Your task to perform on an android device: Add "asus rog" to the cart on ebay, then select checkout. Image 0: 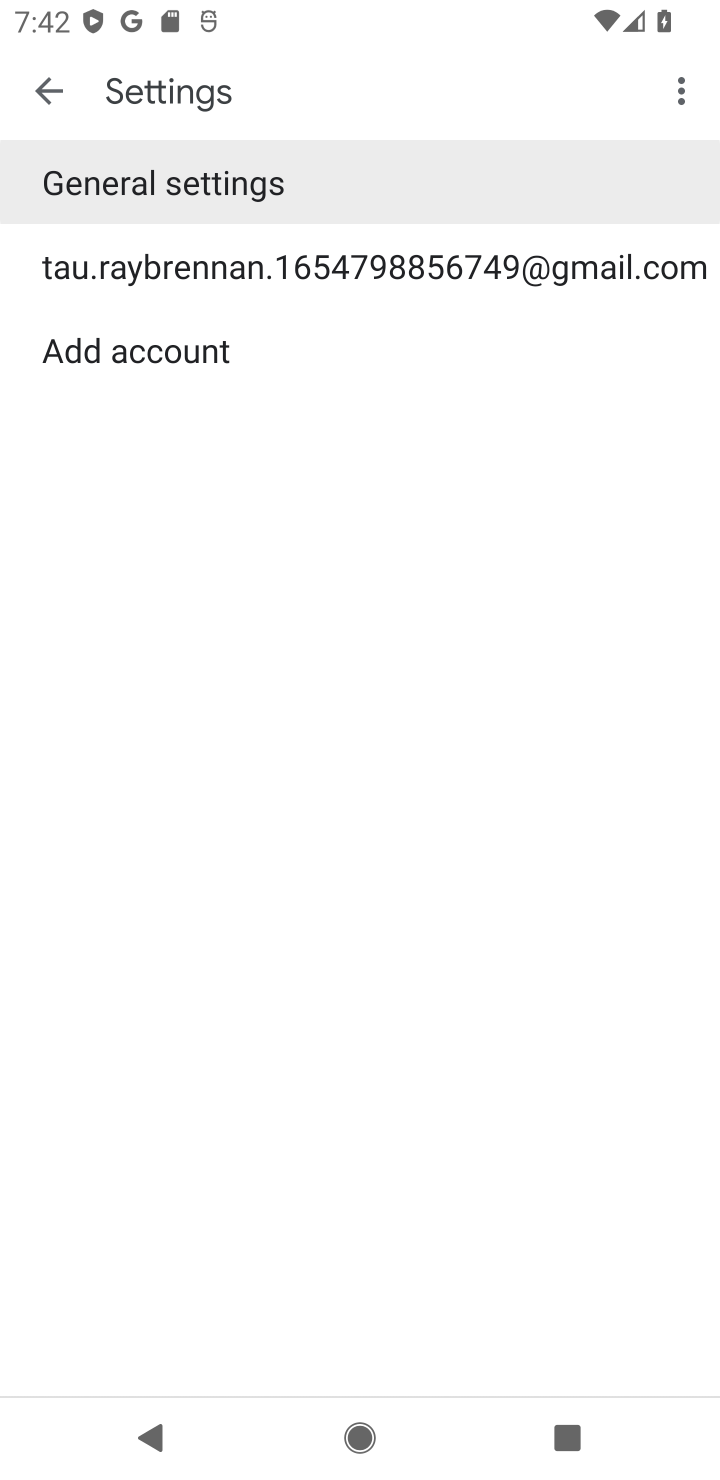
Step 0: press home button
Your task to perform on an android device: Add "asus rog" to the cart on ebay, then select checkout. Image 1: 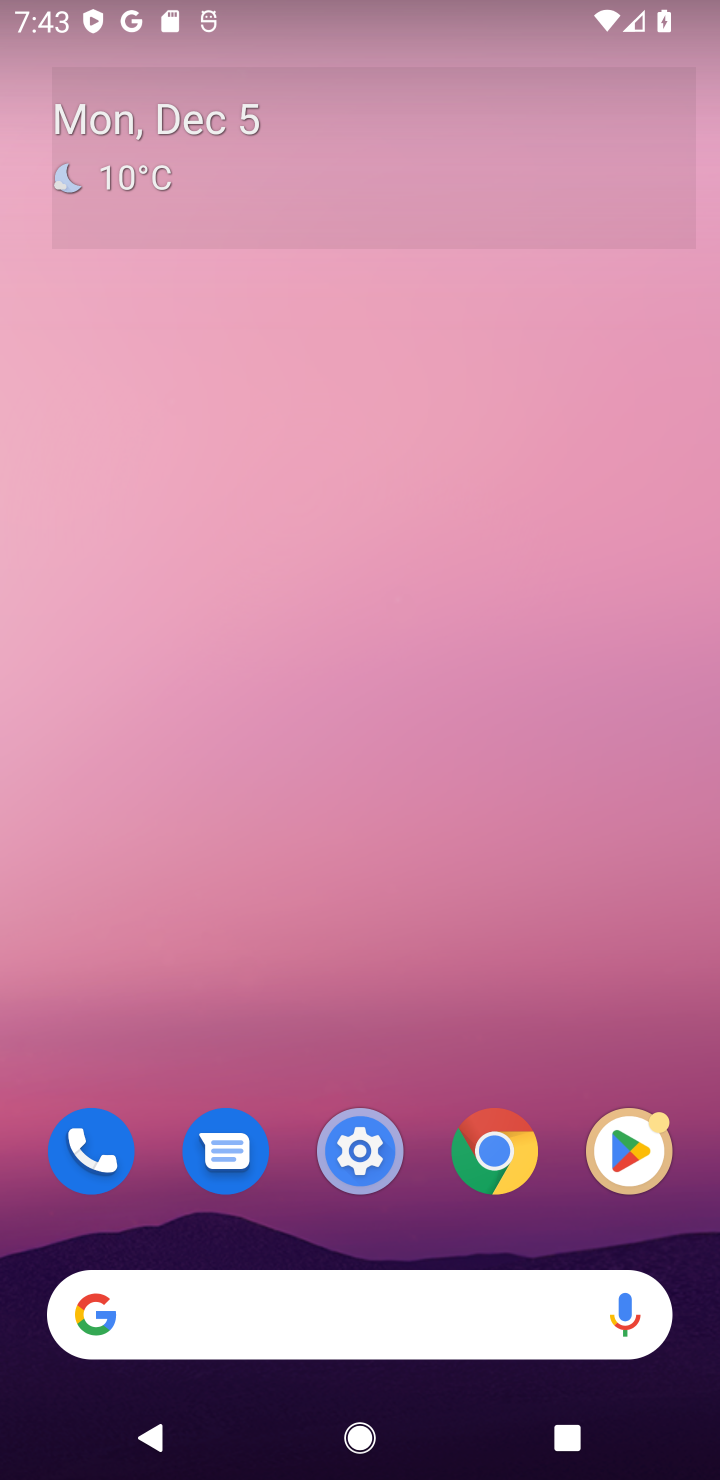
Step 1: click (434, 1349)
Your task to perform on an android device: Add "asus rog" to the cart on ebay, then select checkout. Image 2: 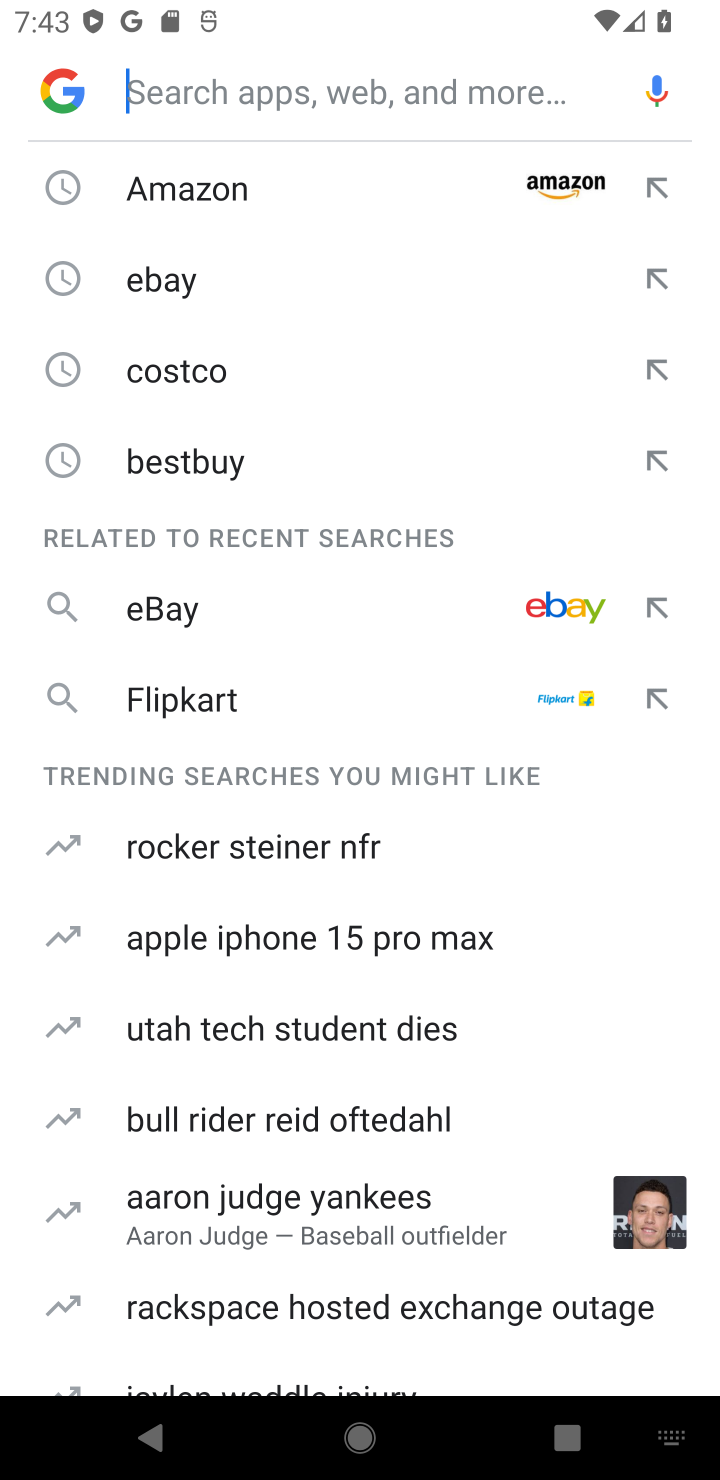
Step 2: type "asus rog"
Your task to perform on an android device: Add "asus rog" to the cart on ebay, then select checkout. Image 3: 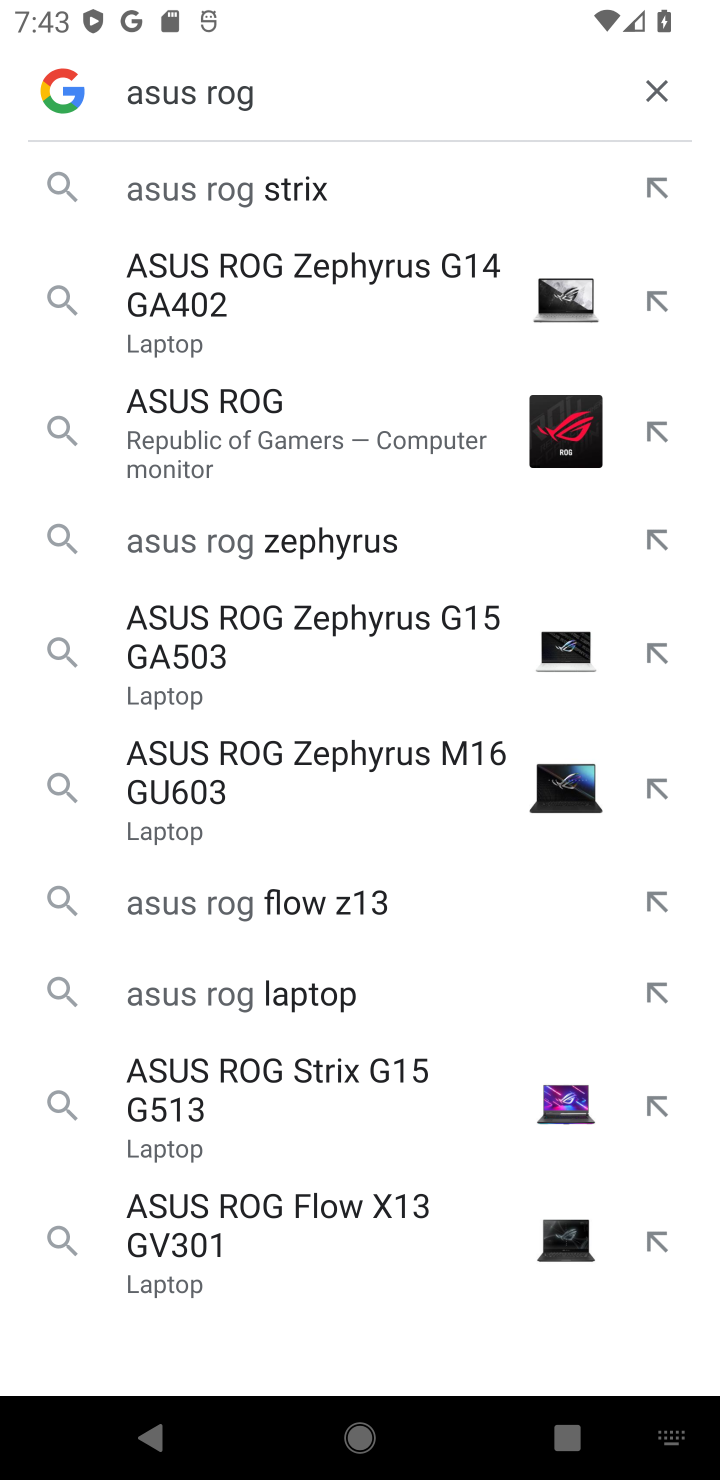
Step 3: click (216, 304)
Your task to perform on an android device: Add "asus rog" to the cart on ebay, then select checkout. Image 4: 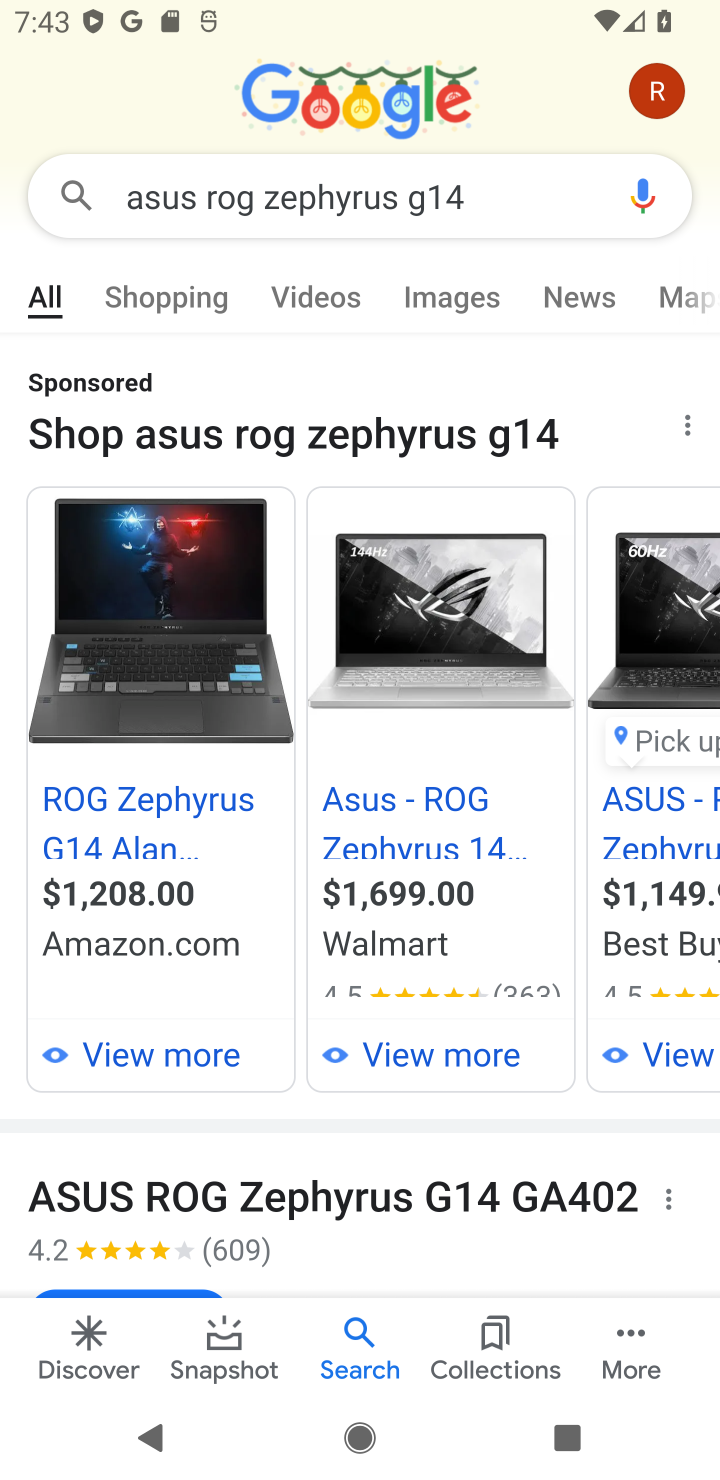
Step 4: task complete